Your task to perform on an android device: clear all cookies in the chrome app Image 0: 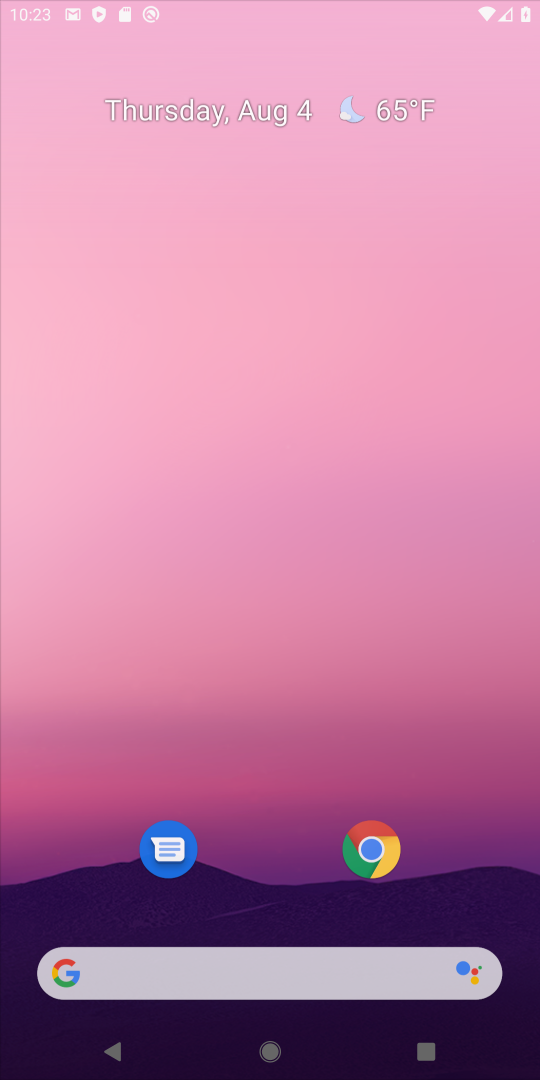
Step 0: press back button
Your task to perform on an android device: clear all cookies in the chrome app Image 1: 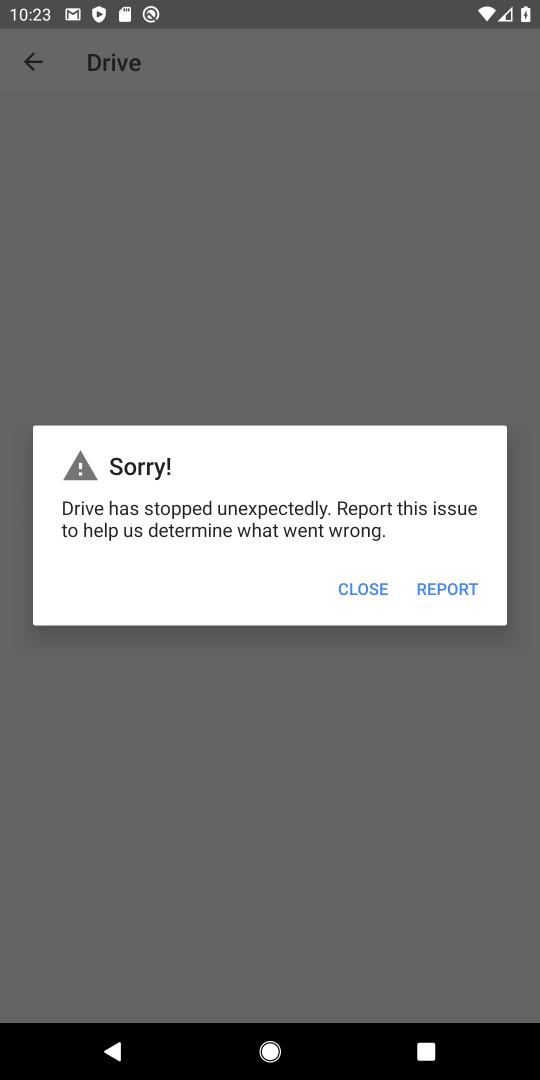
Step 1: press home button
Your task to perform on an android device: clear all cookies in the chrome app Image 2: 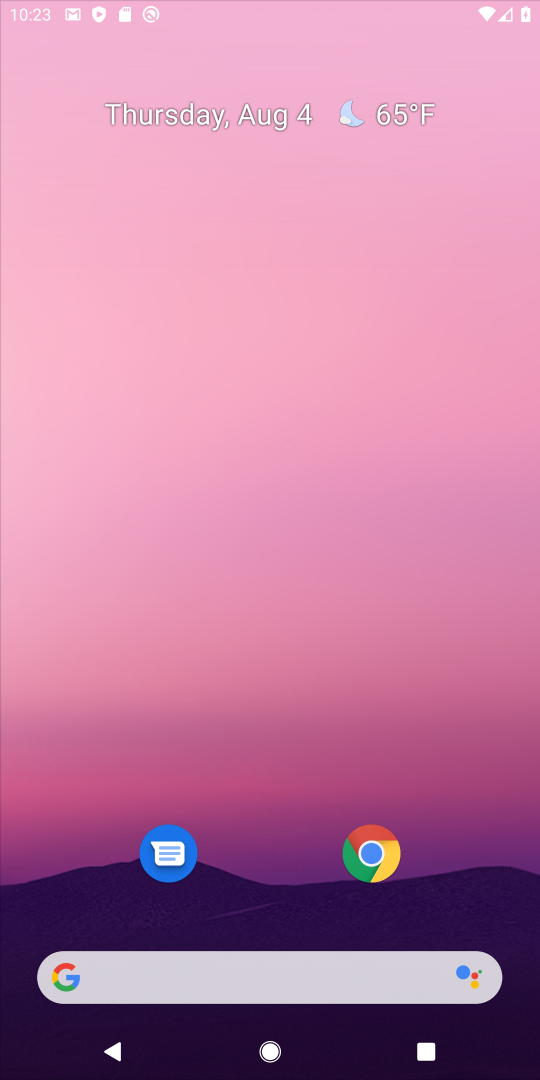
Step 2: press home button
Your task to perform on an android device: clear all cookies in the chrome app Image 3: 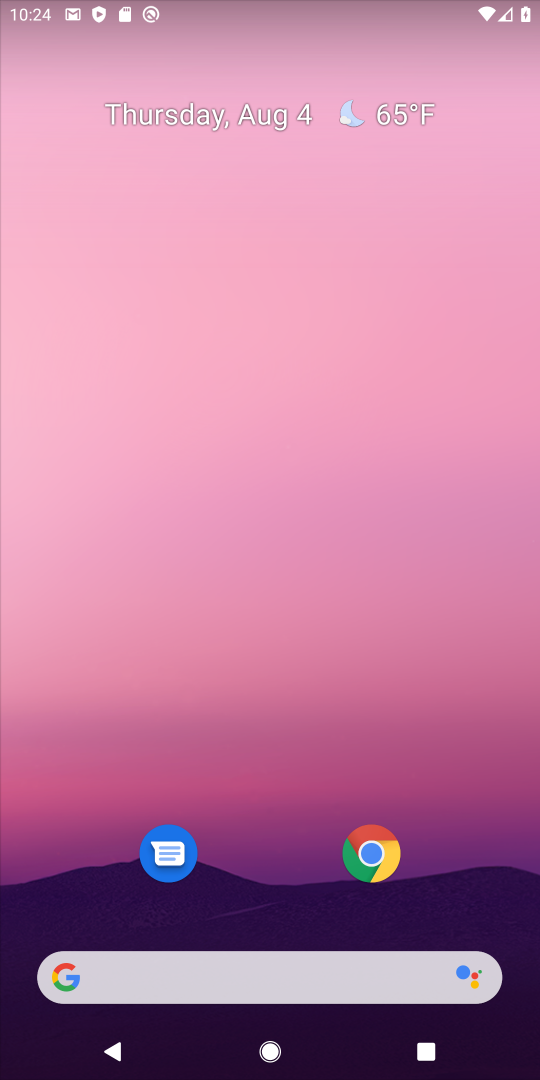
Step 3: drag from (271, 892) to (176, 21)
Your task to perform on an android device: clear all cookies in the chrome app Image 4: 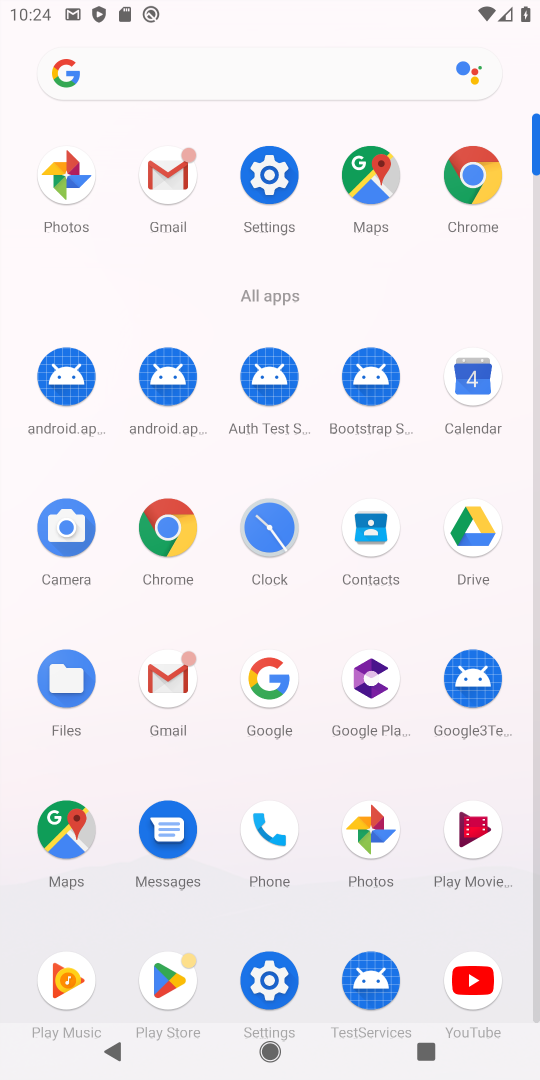
Step 4: click (456, 194)
Your task to perform on an android device: clear all cookies in the chrome app Image 5: 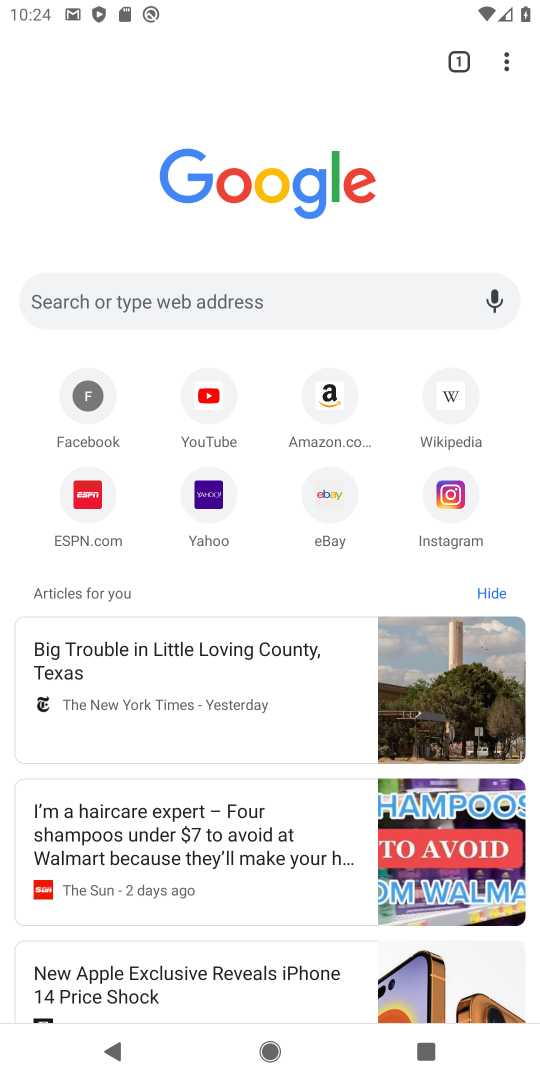
Step 5: drag from (507, 63) to (290, 333)
Your task to perform on an android device: clear all cookies in the chrome app Image 6: 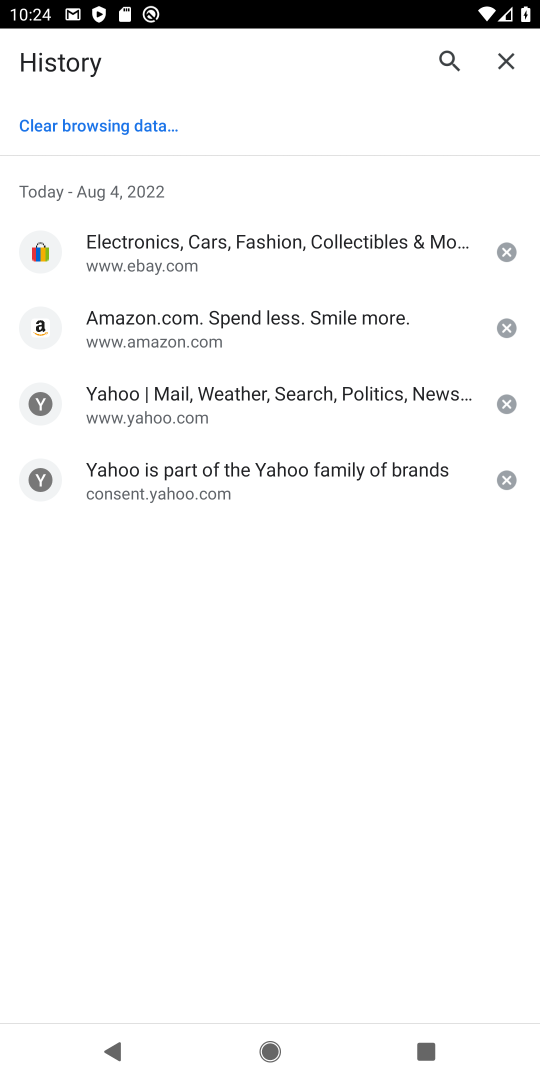
Step 6: click (92, 127)
Your task to perform on an android device: clear all cookies in the chrome app Image 7: 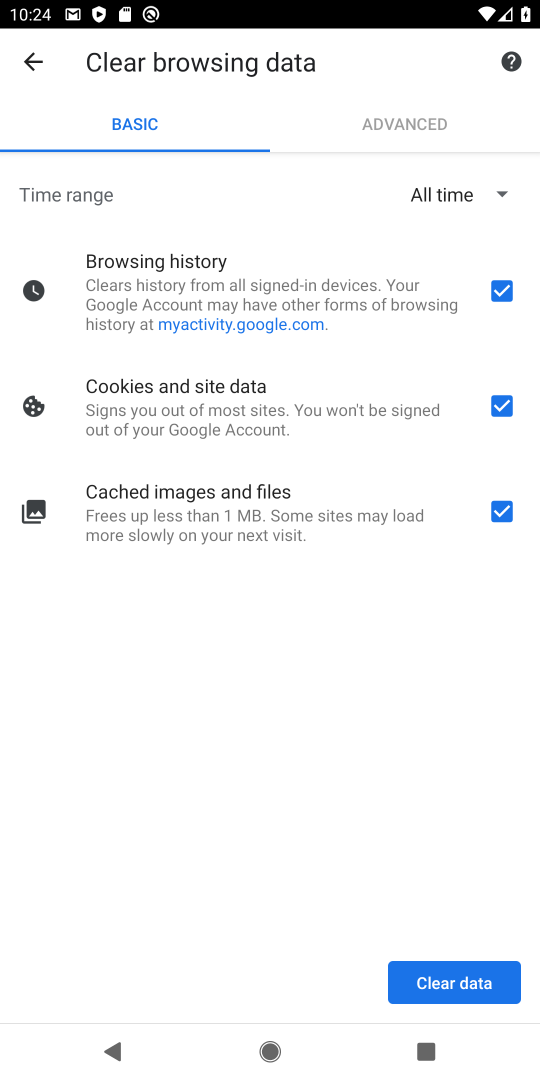
Step 7: click (520, 972)
Your task to perform on an android device: clear all cookies in the chrome app Image 8: 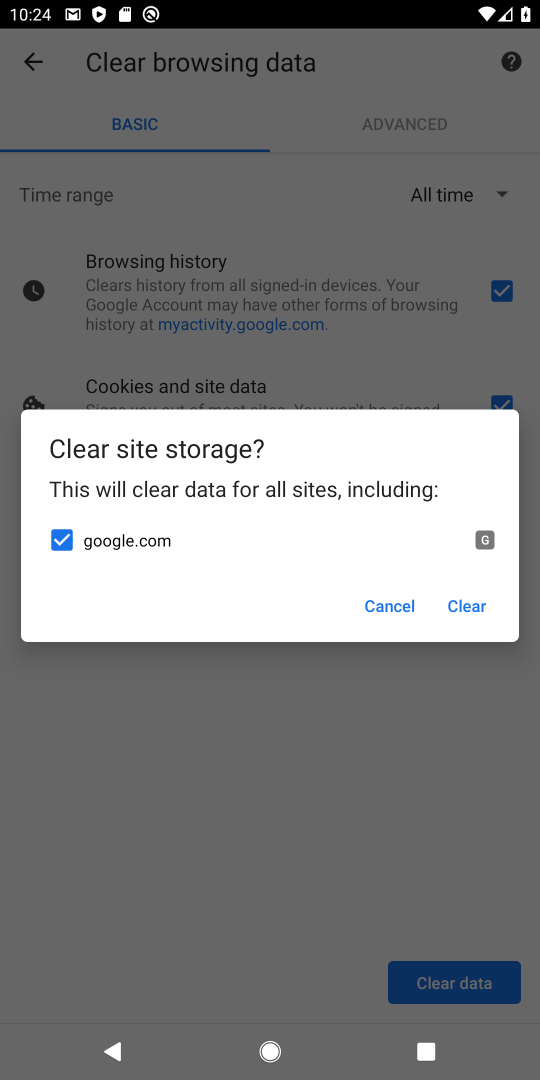
Step 8: click (480, 602)
Your task to perform on an android device: clear all cookies in the chrome app Image 9: 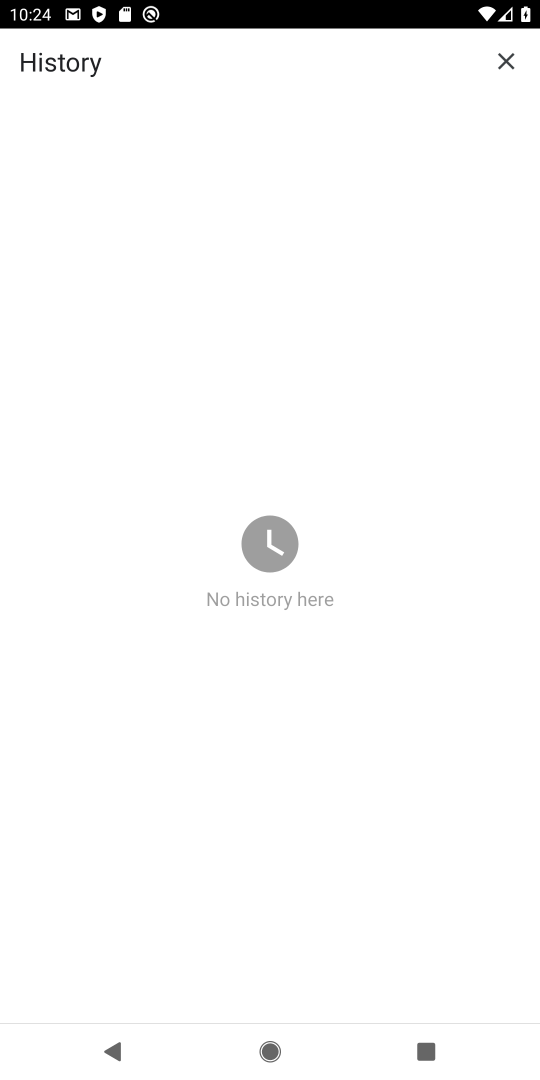
Step 9: task complete